Your task to perform on an android device: Go to battery settings Image 0: 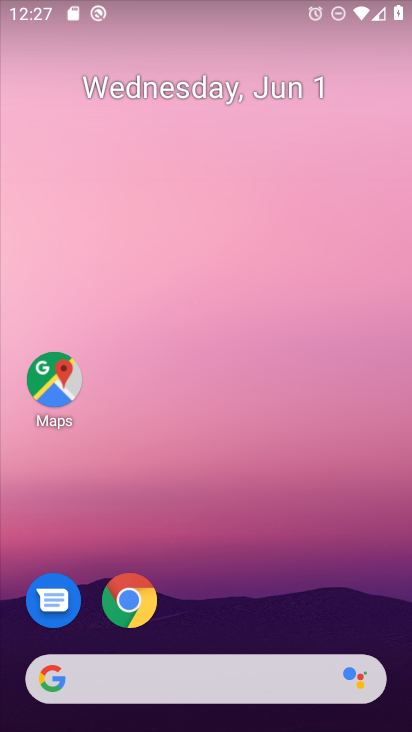
Step 0: drag from (234, 613) to (227, 0)
Your task to perform on an android device: Go to battery settings Image 1: 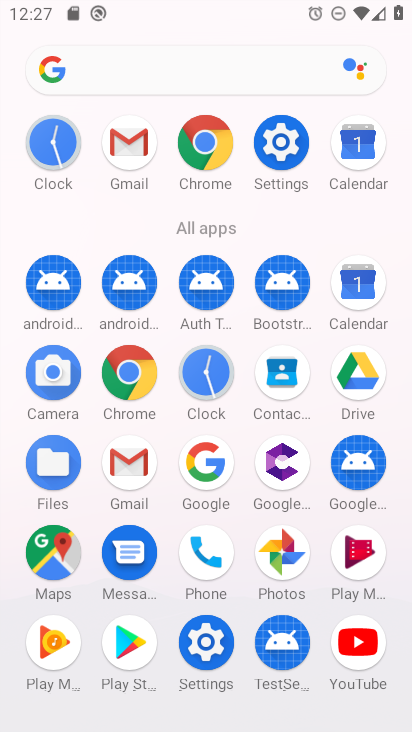
Step 1: click (276, 135)
Your task to perform on an android device: Go to battery settings Image 2: 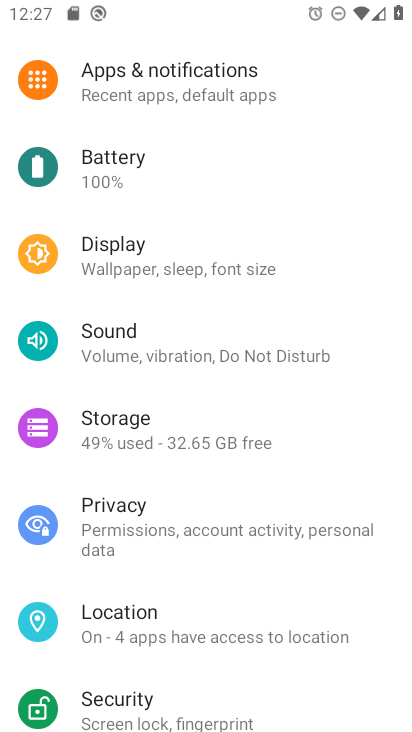
Step 2: click (158, 156)
Your task to perform on an android device: Go to battery settings Image 3: 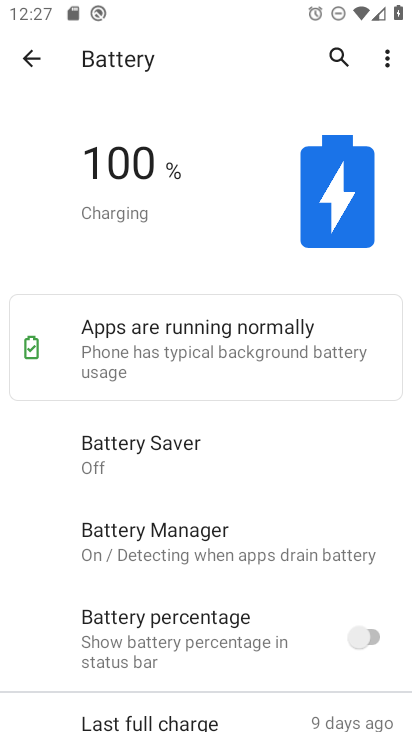
Step 3: task complete